Your task to perform on an android device: change notifications settings Image 0: 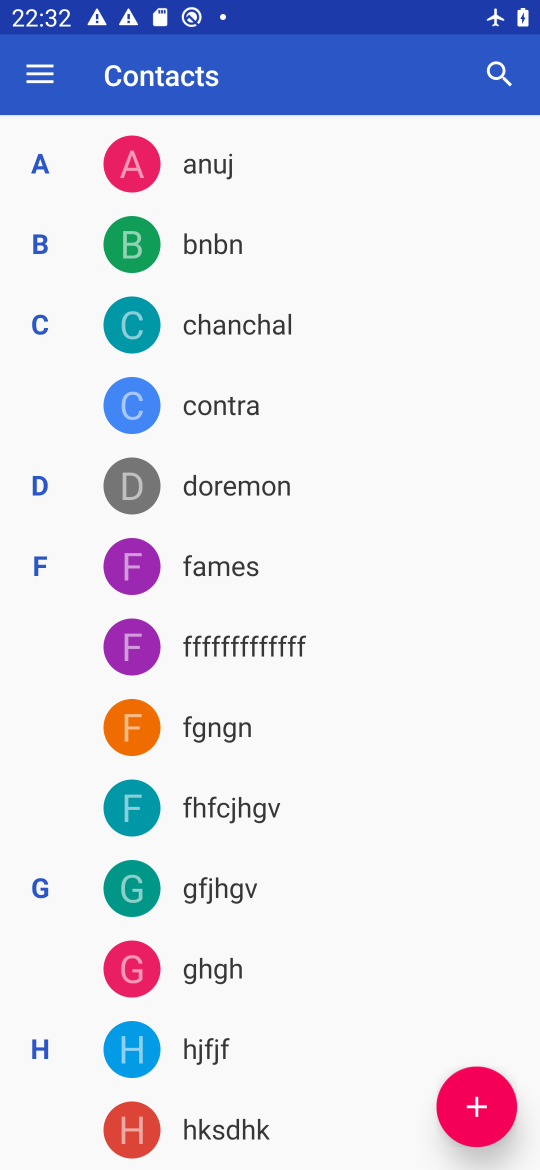
Step 0: press home button
Your task to perform on an android device: change notifications settings Image 1: 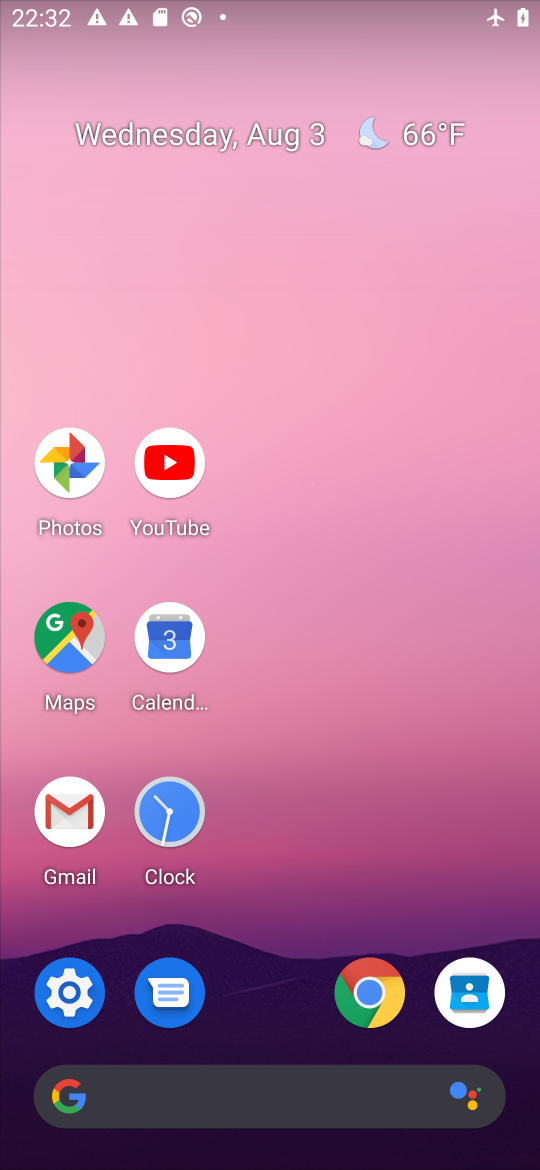
Step 1: click (73, 994)
Your task to perform on an android device: change notifications settings Image 2: 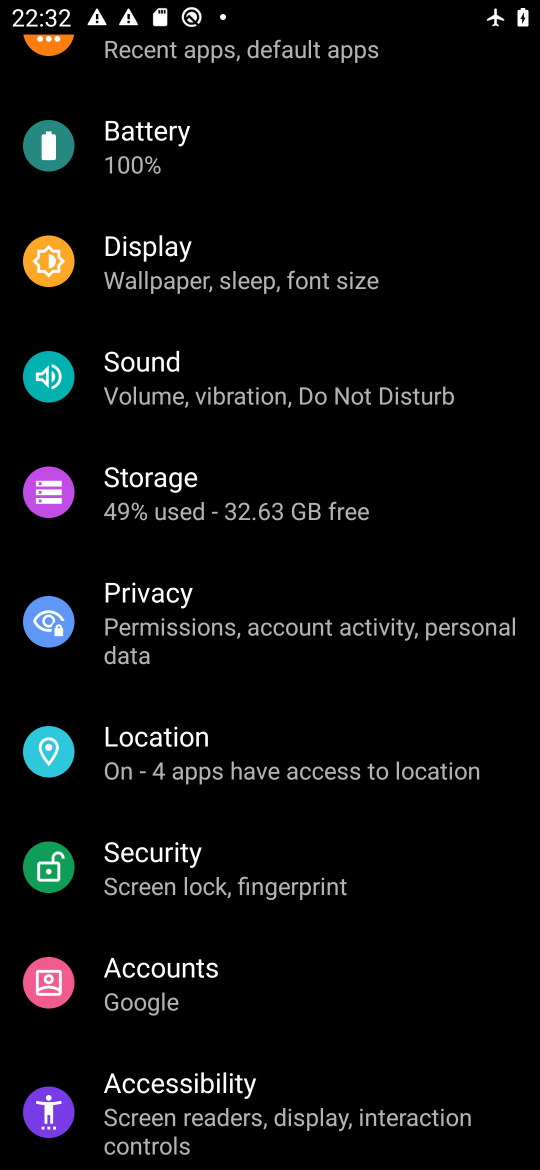
Step 2: drag from (274, 160) to (323, 439)
Your task to perform on an android device: change notifications settings Image 3: 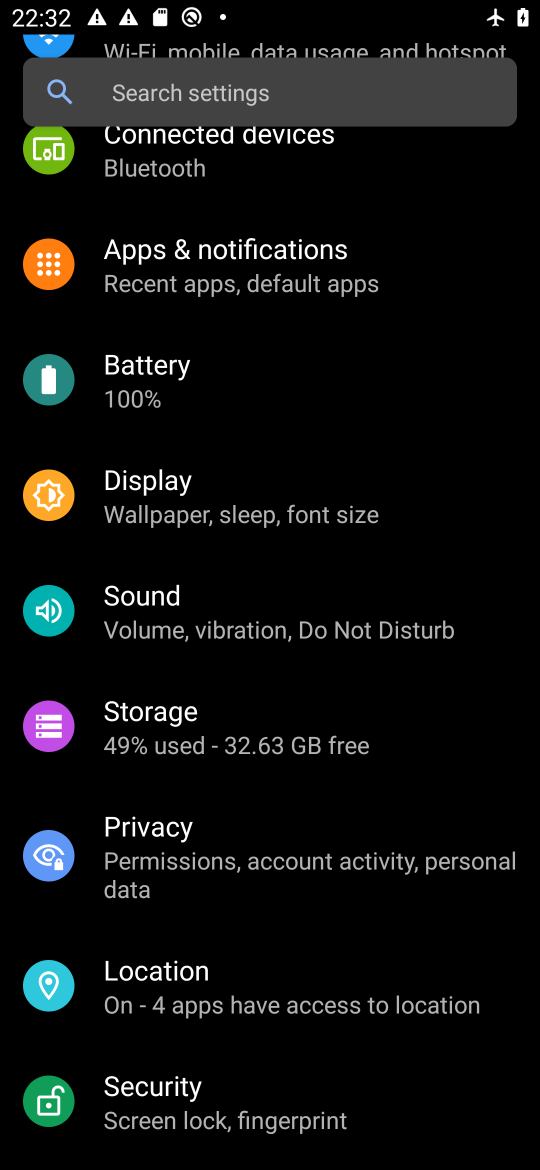
Step 3: click (194, 266)
Your task to perform on an android device: change notifications settings Image 4: 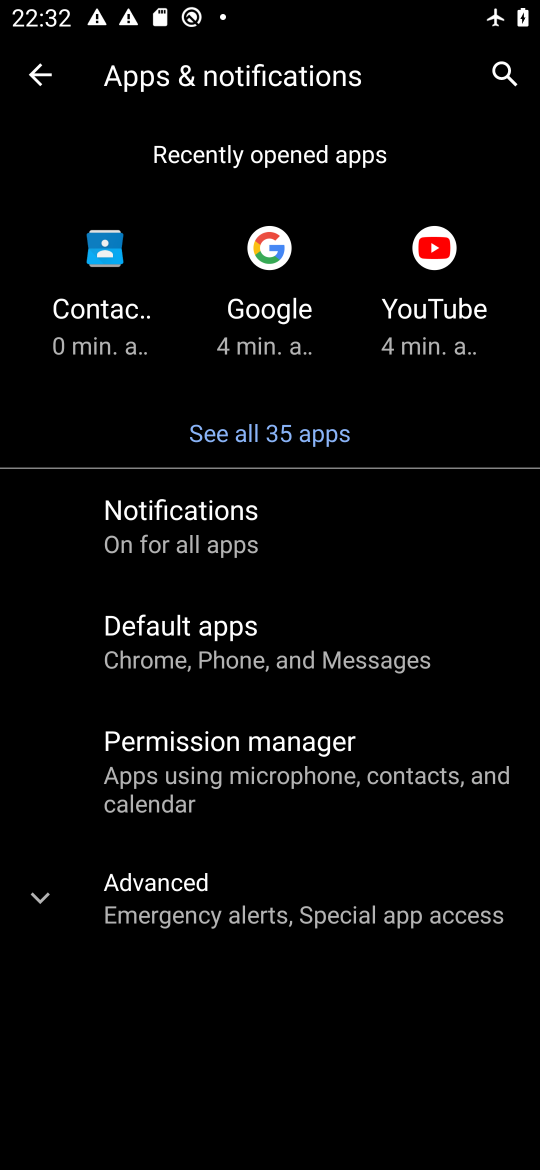
Step 4: click (244, 254)
Your task to perform on an android device: change notifications settings Image 5: 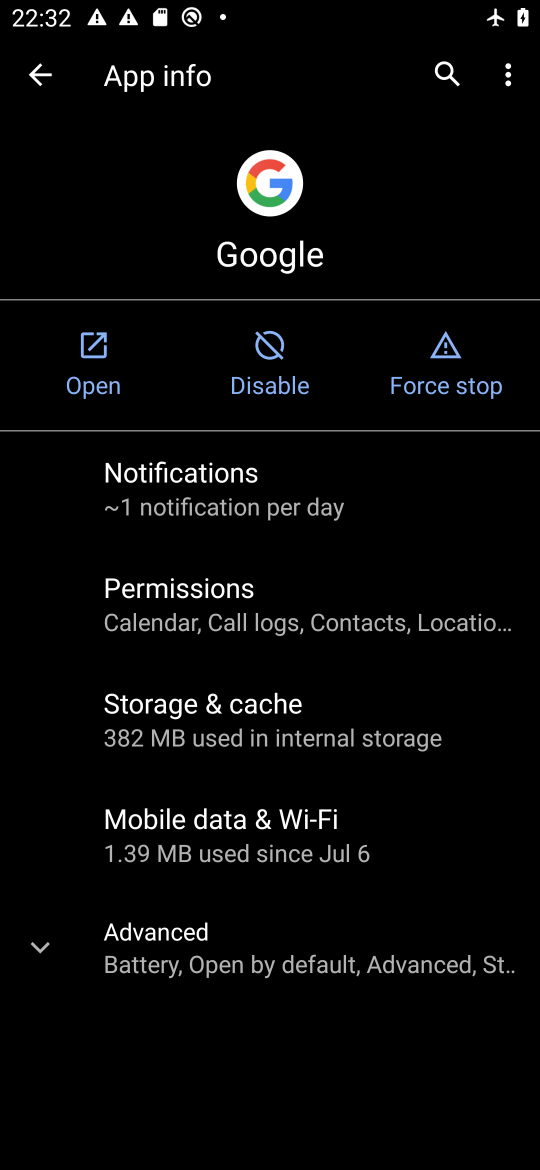
Step 5: click (28, 79)
Your task to perform on an android device: change notifications settings Image 6: 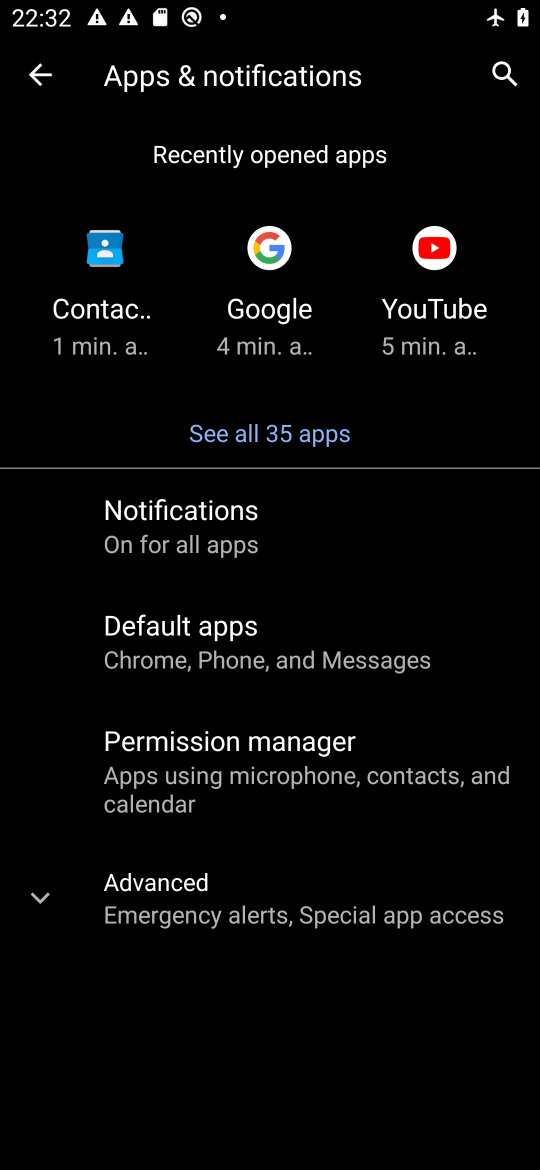
Step 6: click (191, 498)
Your task to perform on an android device: change notifications settings Image 7: 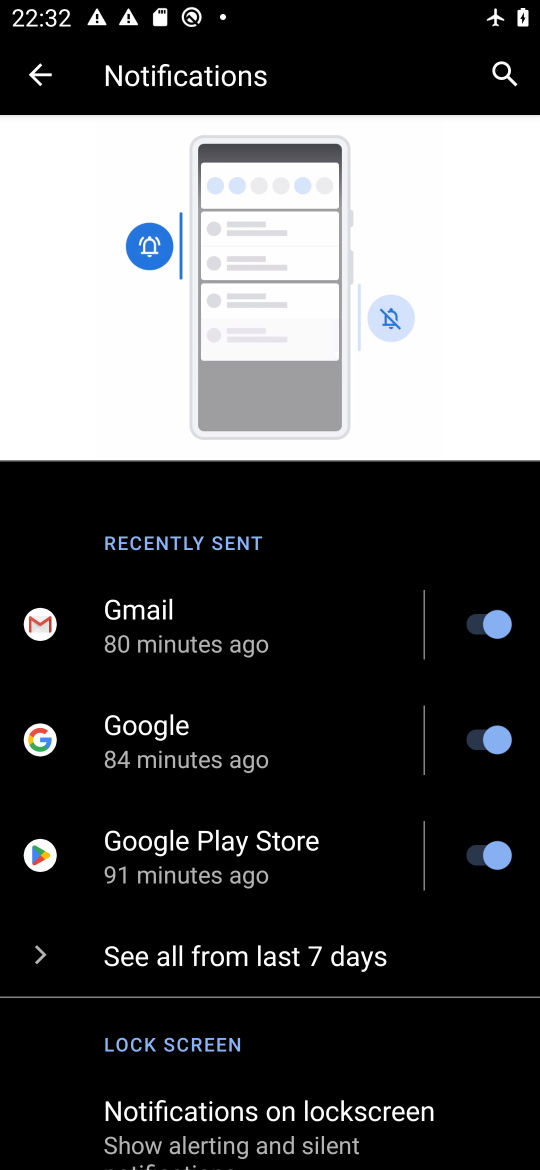
Step 7: click (259, 959)
Your task to perform on an android device: change notifications settings Image 8: 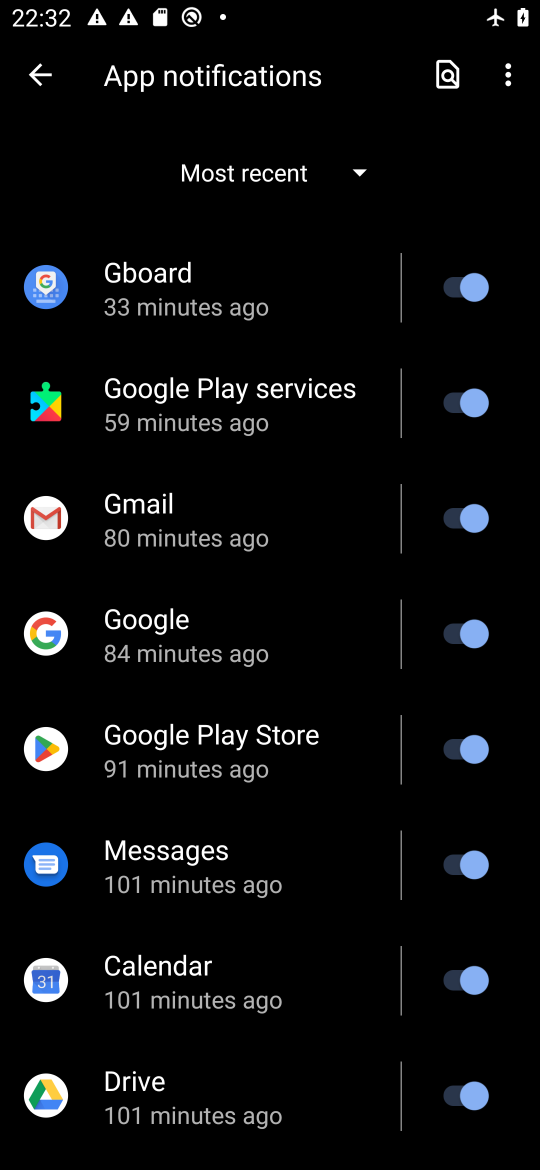
Step 8: click (354, 180)
Your task to perform on an android device: change notifications settings Image 9: 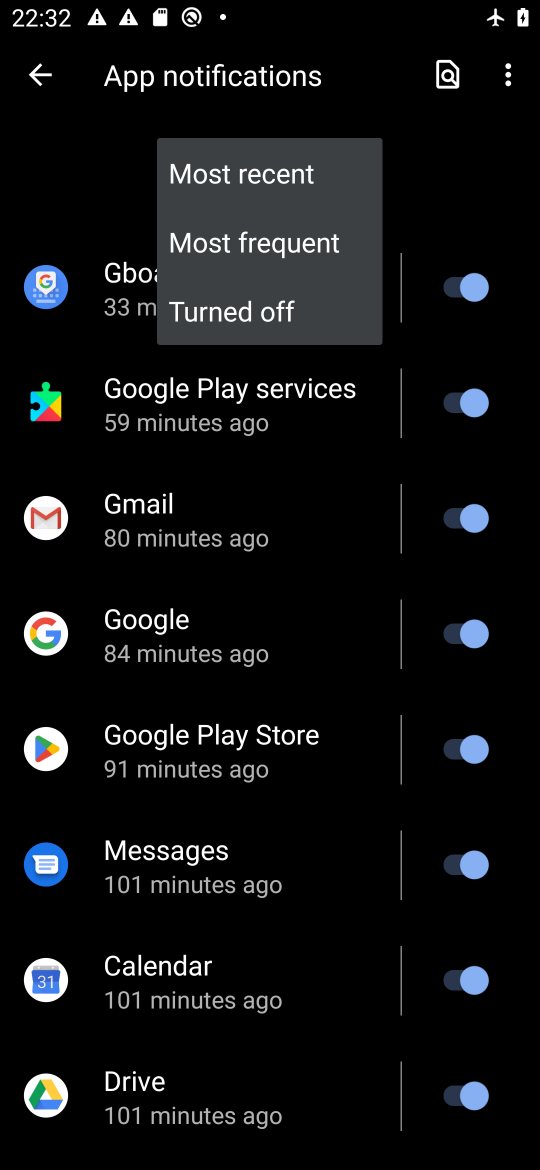
Step 9: click (258, 330)
Your task to perform on an android device: change notifications settings Image 10: 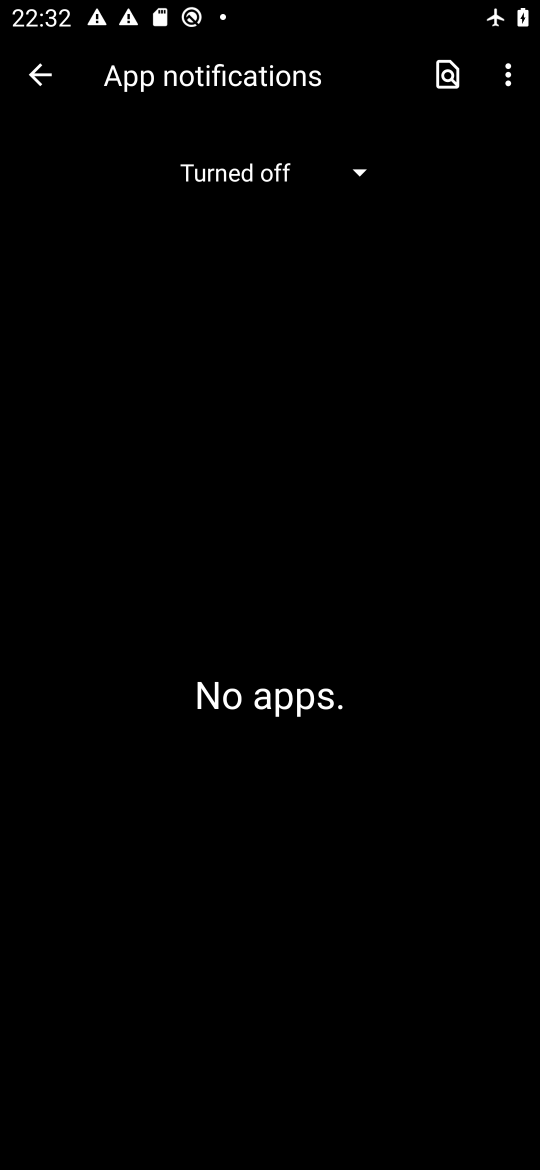
Step 10: task complete